Your task to perform on an android device: See recent photos Image 0: 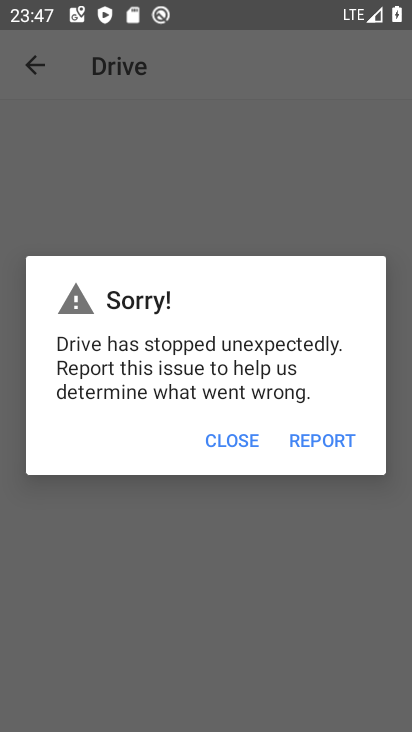
Step 0: press home button
Your task to perform on an android device: See recent photos Image 1: 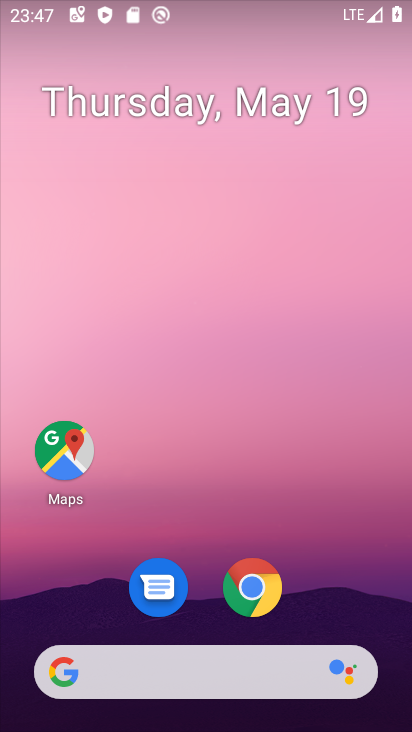
Step 1: drag from (273, 701) to (278, 163)
Your task to perform on an android device: See recent photos Image 2: 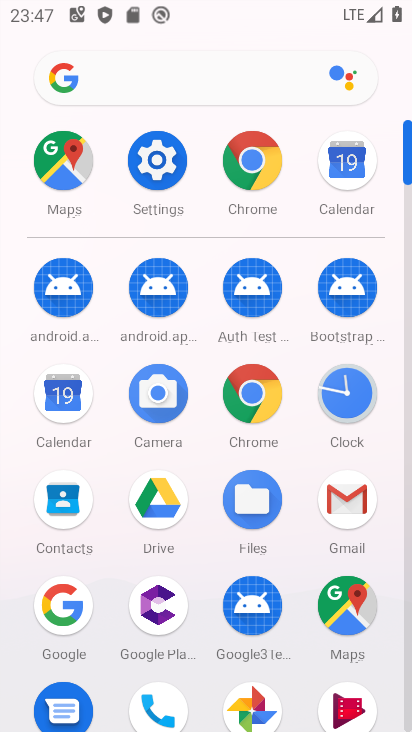
Step 2: drag from (208, 539) to (194, 444)
Your task to perform on an android device: See recent photos Image 3: 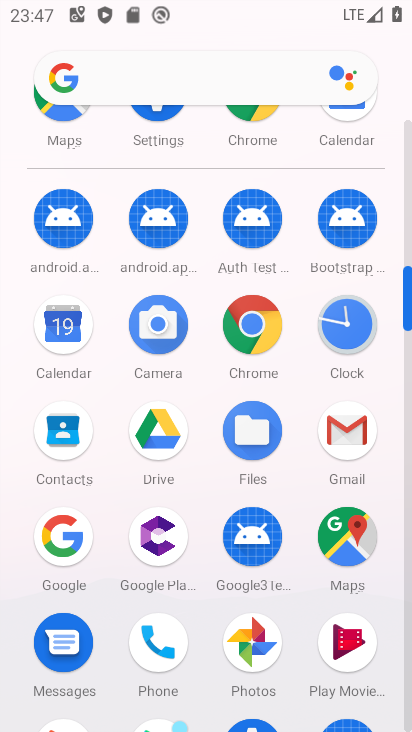
Step 3: click (260, 634)
Your task to perform on an android device: See recent photos Image 4: 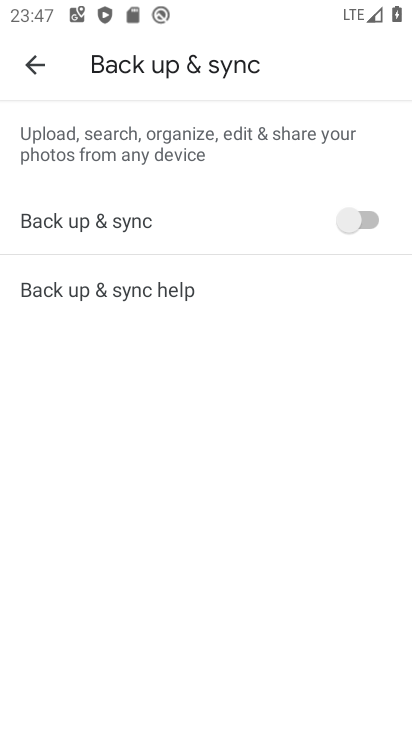
Step 4: click (59, 54)
Your task to perform on an android device: See recent photos Image 5: 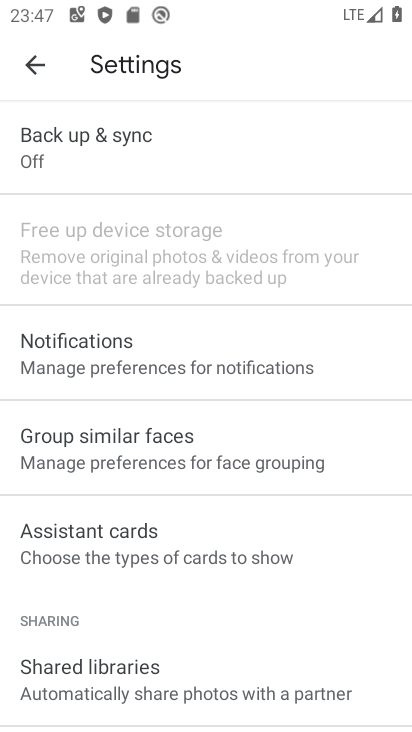
Step 5: click (38, 65)
Your task to perform on an android device: See recent photos Image 6: 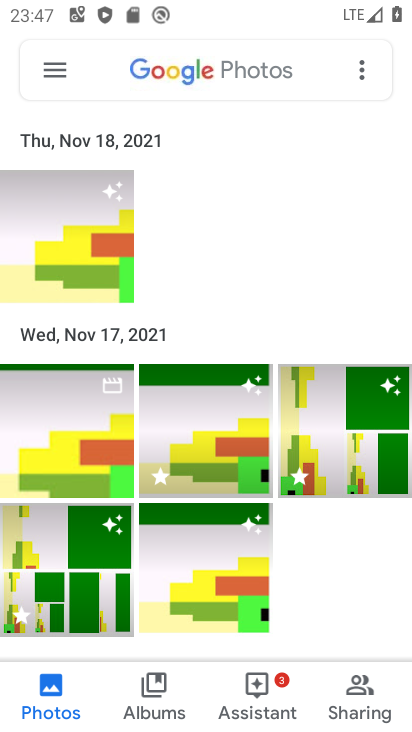
Step 6: task complete